Your task to perform on an android device: Go to CNN.com Image 0: 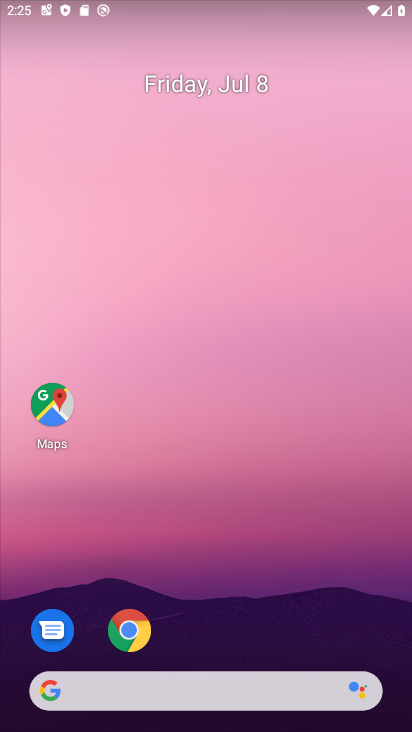
Step 0: click (147, 638)
Your task to perform on an android device: Go to CNN.com Image 1: 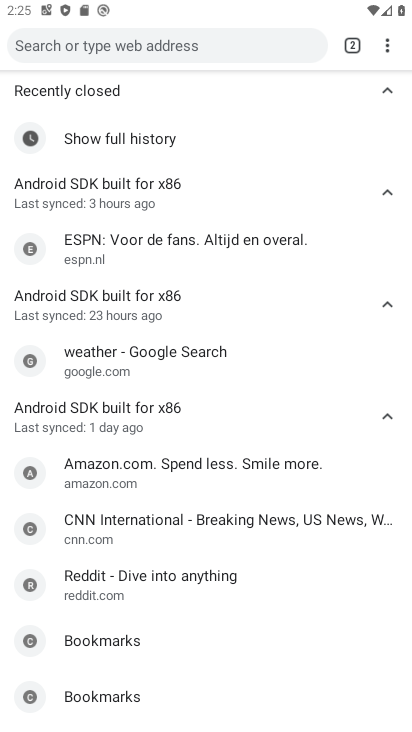
Step 1: click (212, 37)
Your task to perform on an android device: Go to CNN.com Image 2: 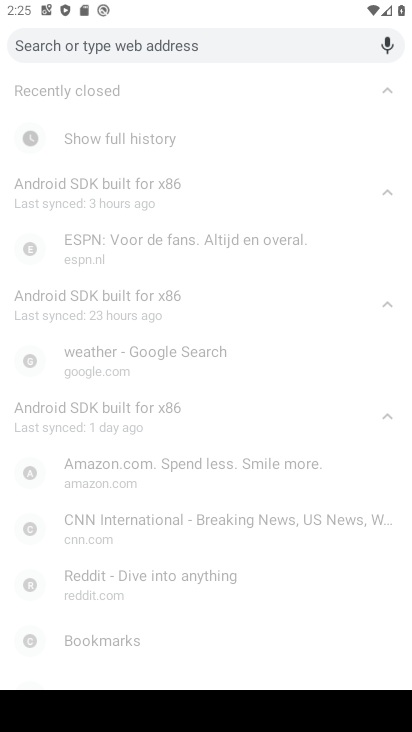
Step 2: type "cnn"
Your task to perform on an android device: Go to CNN.com Image 3: 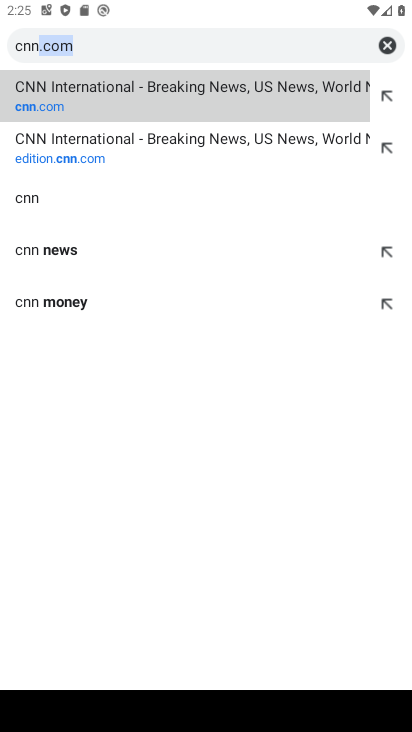
Step 3: click (203, 90)
Your task to perform on an android device: Go to CNN.com Image 4: 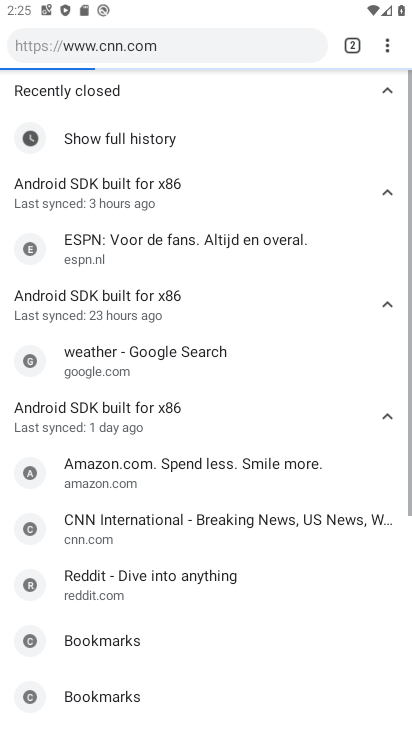
Step 4: task complete